Your task to perform on an android device: turn on priority inbox in the gmail app Image 0: 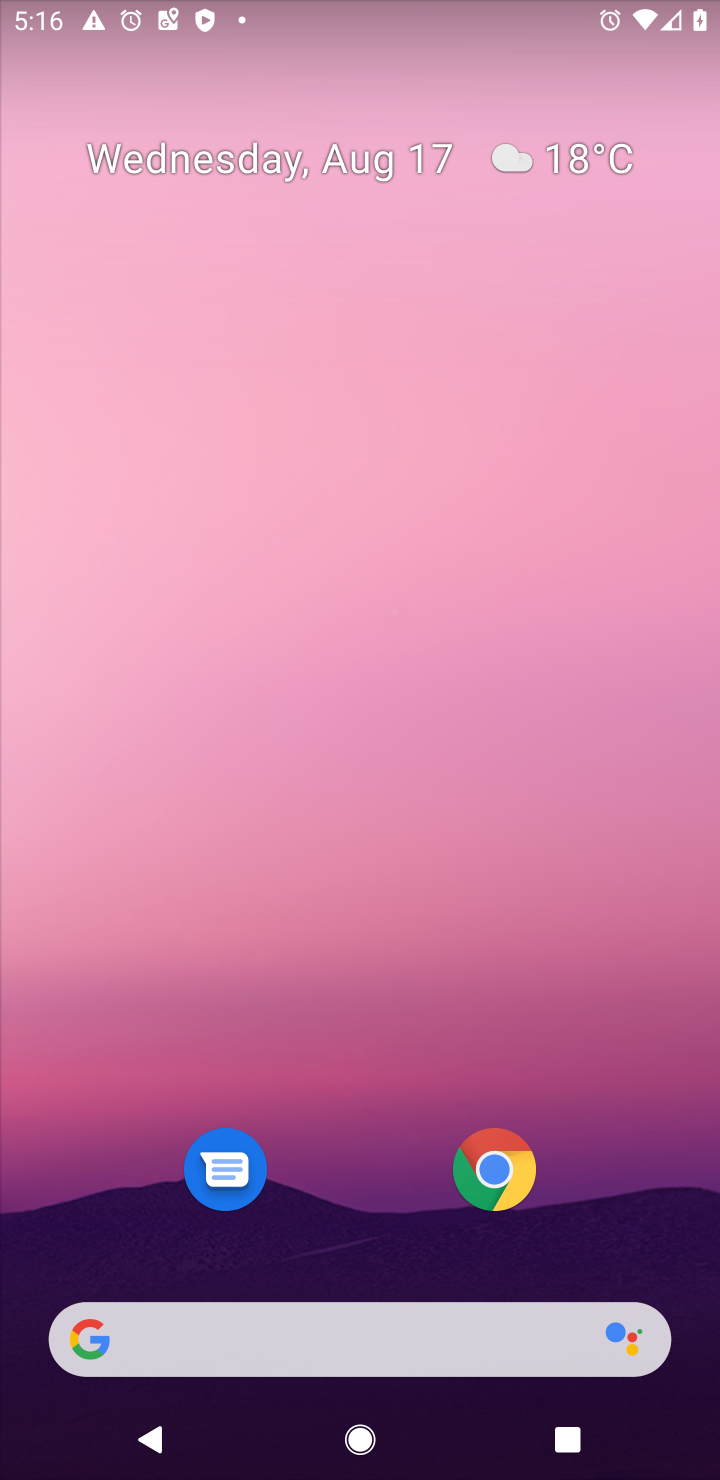
Step 0: drag from (362, 1232) to (262, 8)
Your task to perform on an android device: turn on priority inbox in the gmail app Image 1: 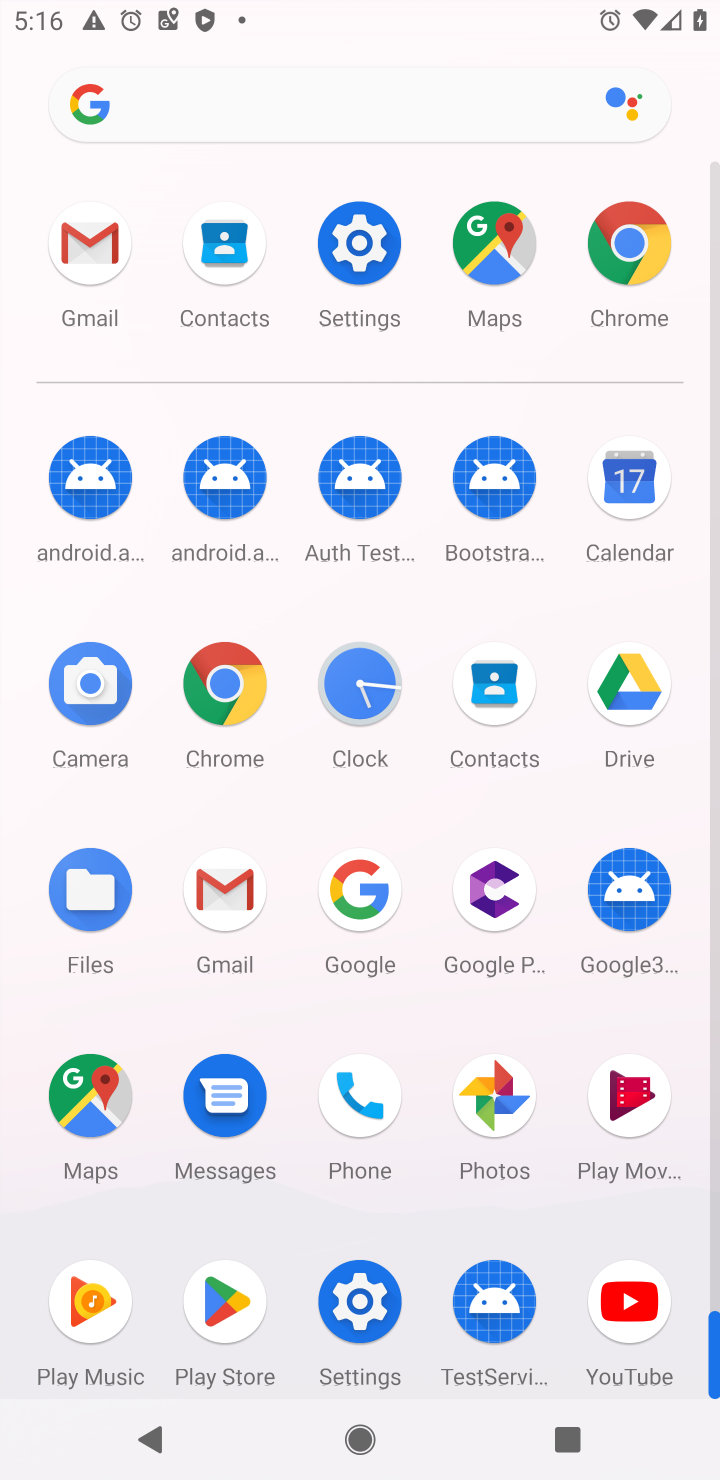
Step 1: click (246, 895)
Your task to perform on an android device: turn on priority inbox in the gmail app Image 2: 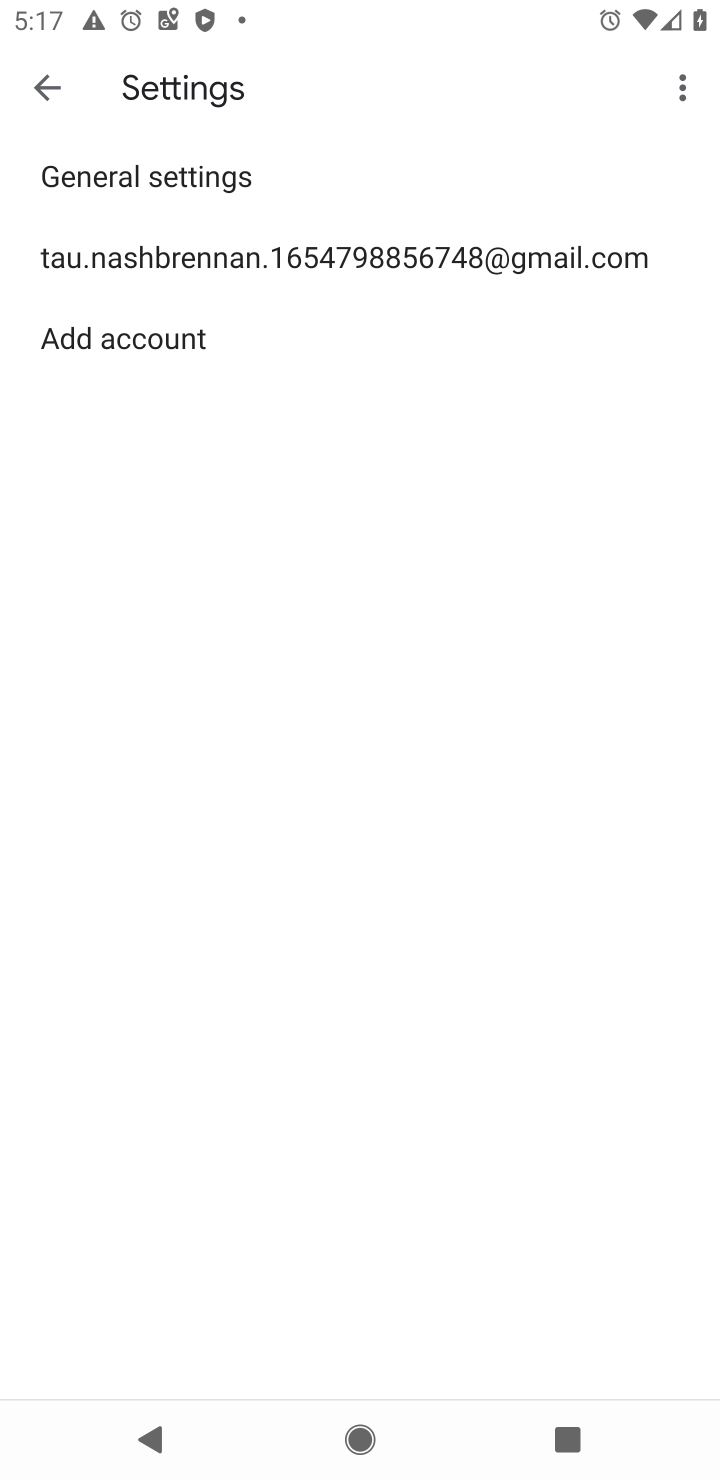
Step 2: click (438, 269)
Your task to perform on an android device: turn on priority inbox in the gmail app Image 3: 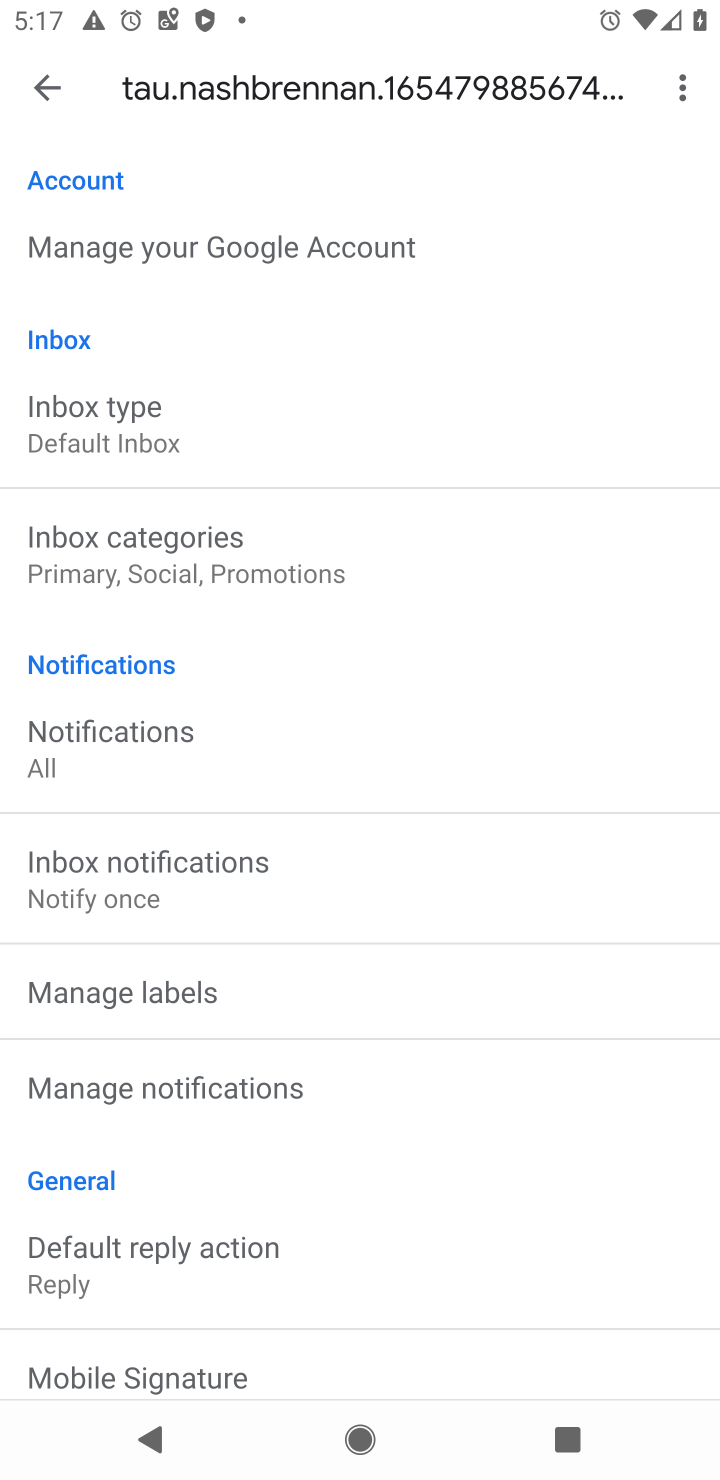
Step 3: click (85, 437)
Your task to perform on an android device: turn on priority inbox in the gmail app Image 4: 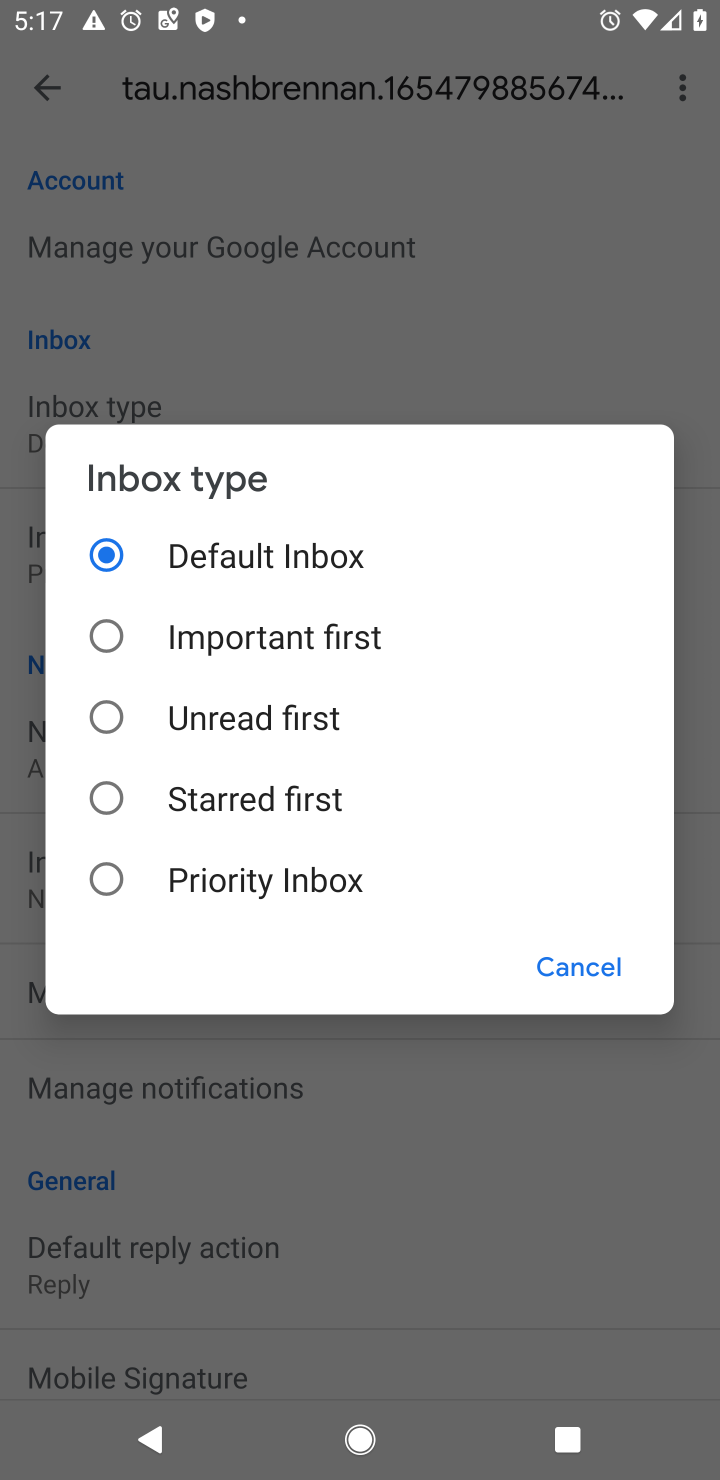
Step 4: click (271, 877)
Your task to perform on an android device: turn on priority inbox in the gmail app Image 5: 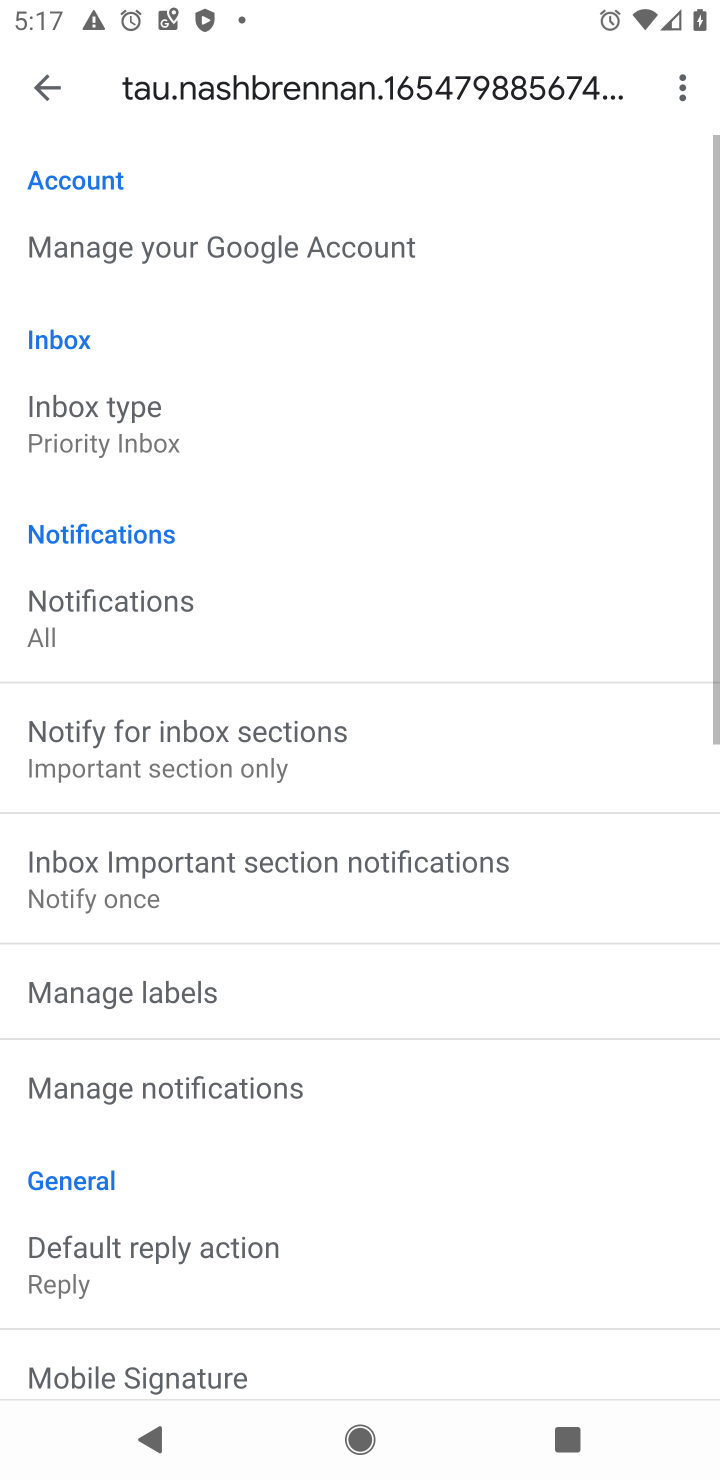
Step 5: task complete